Your task to perform on an android device: Go to Wikipedia Image 0: 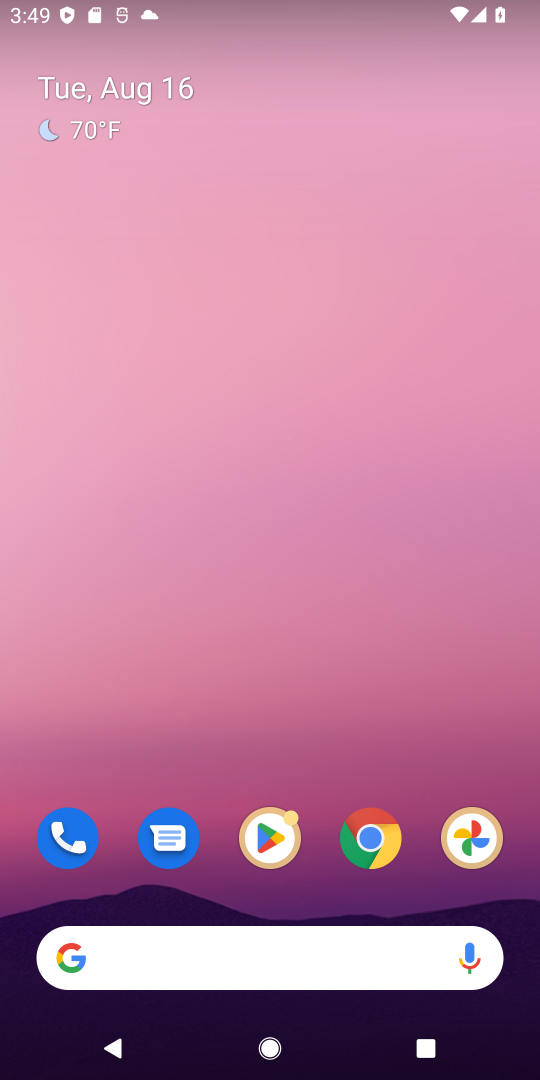
Step 0: click (339, 848)
Your task to perform on an android device: Go to Wikipedia Image 1: 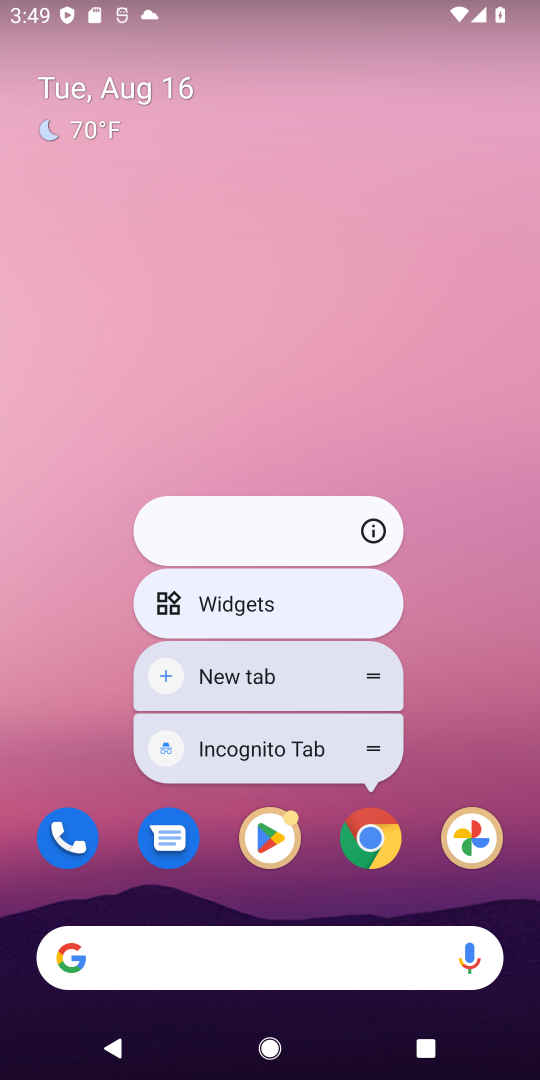
Step 1: click (357, 846)
Your task to perform on an android device: Go to Wikipedia Image 2: 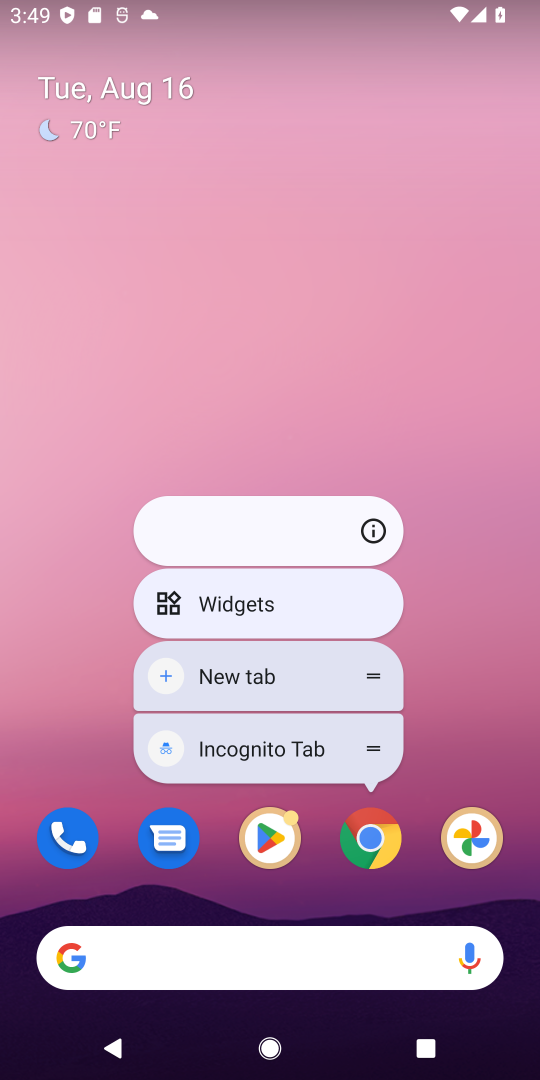
Step 2: click (357, 846)
Your task to perform on an android device: Go to Wikipedia Image 3: 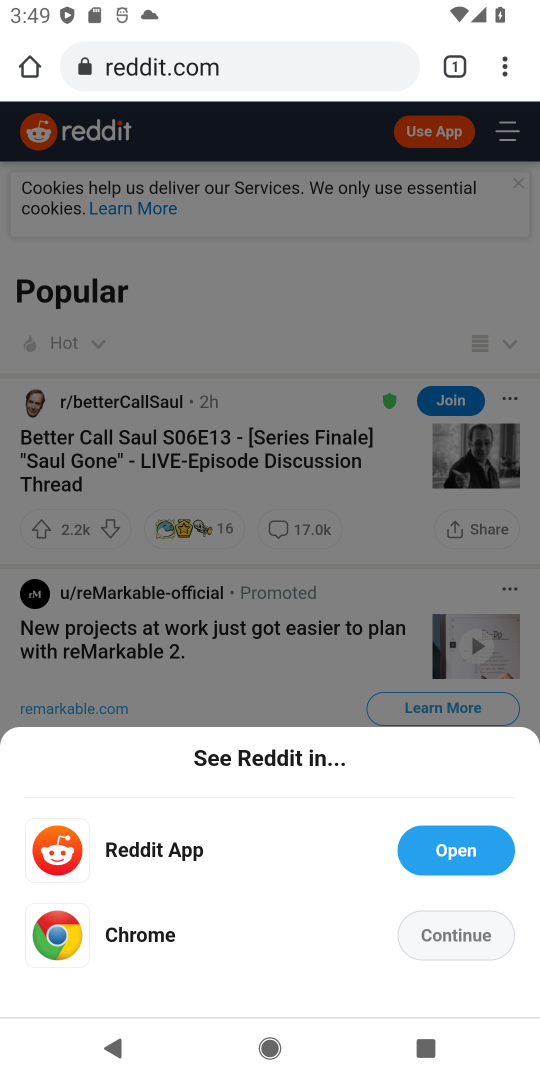
Step 3: click (207, 65)
Your task to perform on an android device: Go to Wikipedia Image 4: 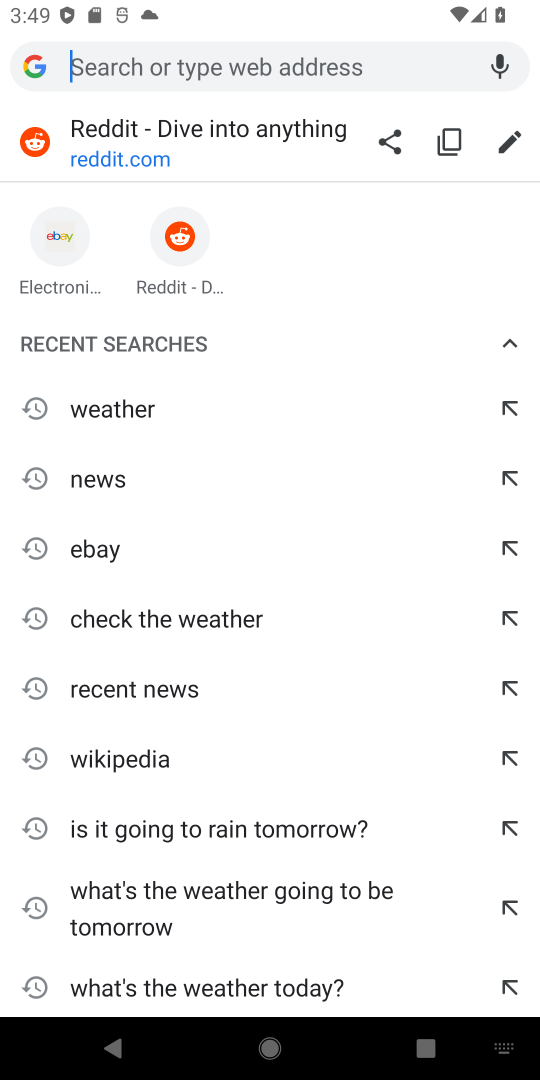
Step 4: type "wikipedia"
Your task to perform on an android device: Go to Wikipedia Image 5: 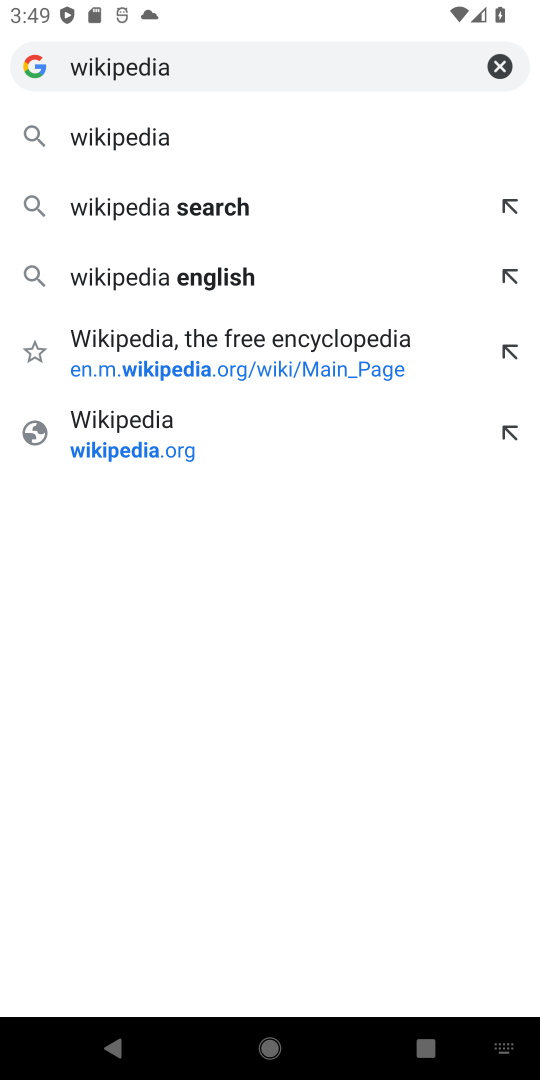
Step 5: click (179, 341)
Your task to perform on an android device: Go to Wikipedia Image 6: 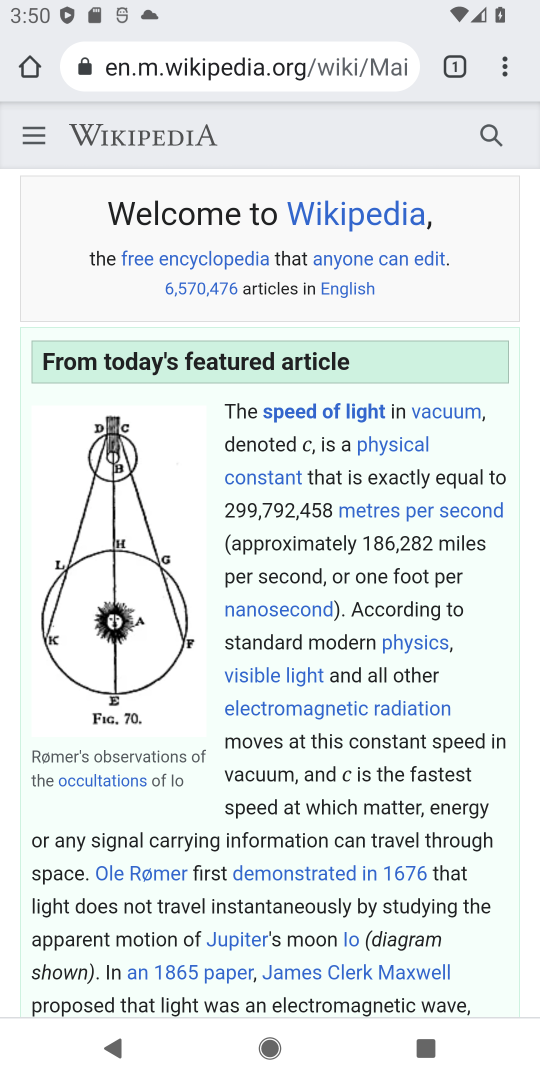
Step 6: task complete